Your task to perform on an android device: change notifications settings Image 0: 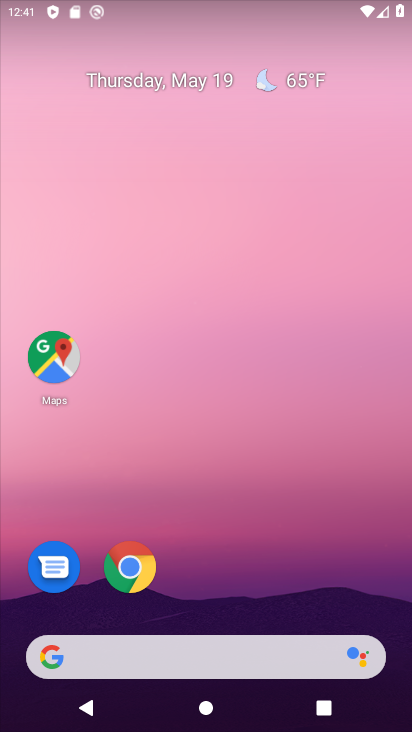
Step 0: drag from (270, 586) to (268, 57)
Your task to perform on an android device: change notifications settings Image 1: 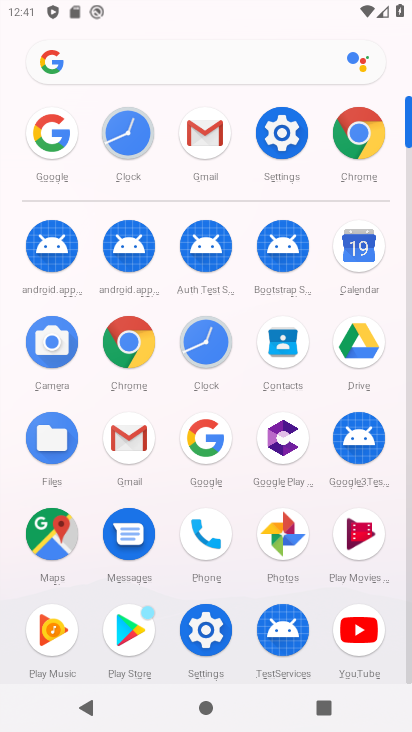
Step 1: click (283, 137)
Your task to perform on an android device: change notifications settings Image 2: 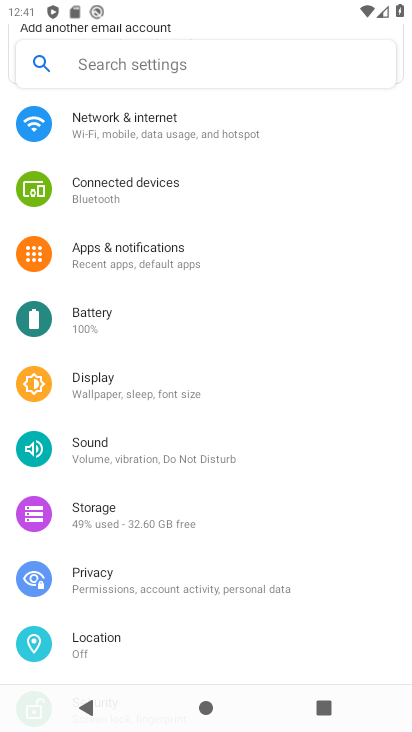
Step 2: click (184, 263)
Your task to perform on an android device: change notifications settings Image 3: 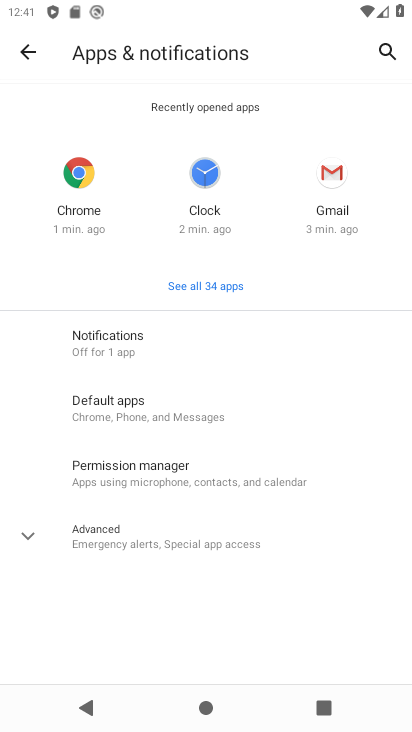
Step 3: click (186, 335)
Your task to perform on an android device: change notifications settings Image 4: 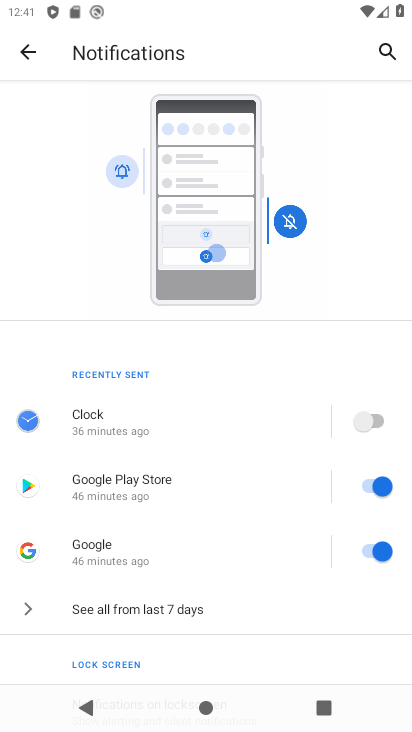
Step 4: drag from (312, 642) to (297, 216)
Your task to perform on an android device: change notifications settings Image 5: 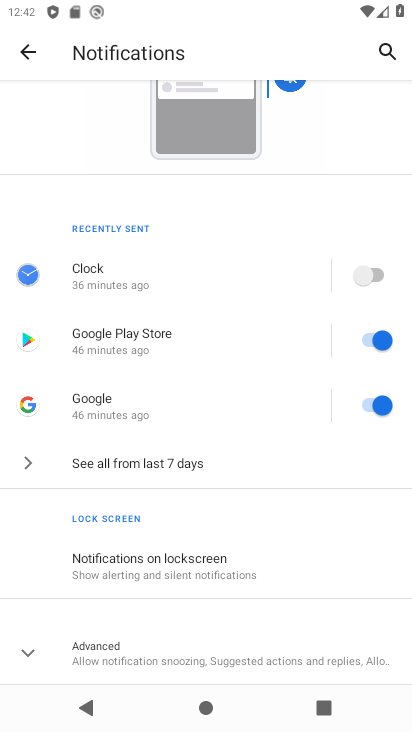
Step 5: click (367, 338)
Your task to perform on an android device: change notifications settings Image 6: 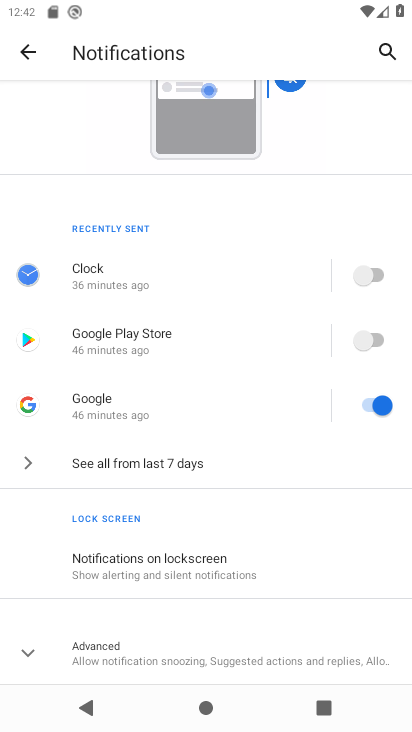
Step 6: task complete